Your task to perform on an android device: Do I have any events today? Image 0: 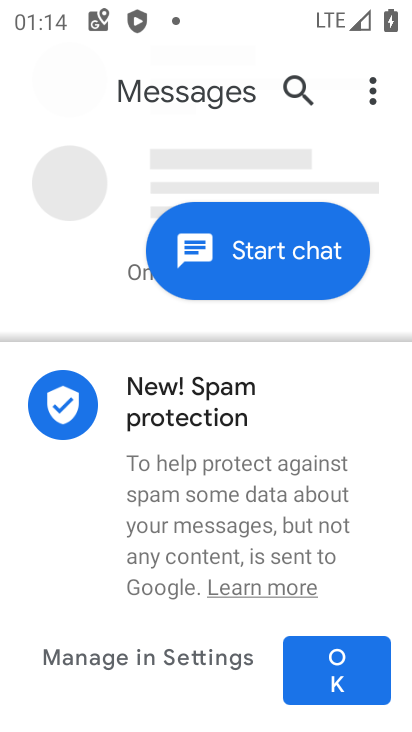
Step 0: press home button
Your task to perform on an android device: Do I have any events today? Image 1: 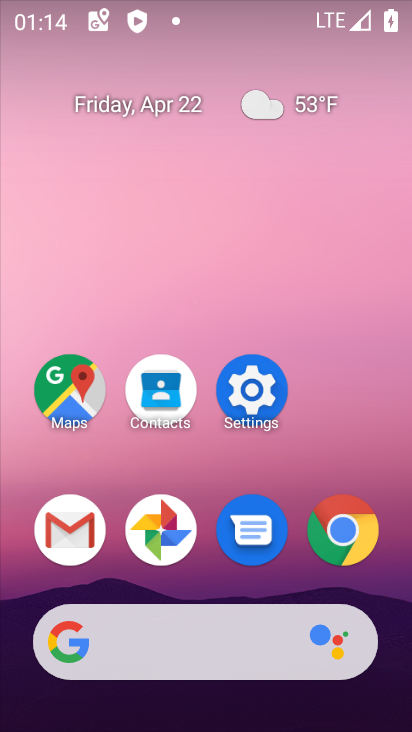
Step 1: drag from (214, 722) to (307, 104)
Your task to perform on an android device: Do I have any events today? Image 2: 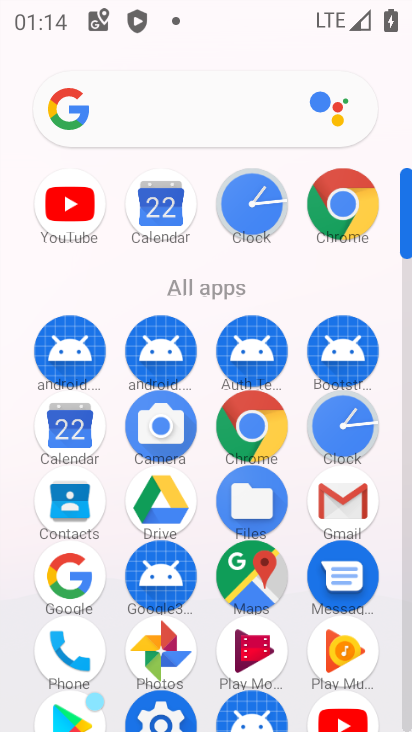
Step 2: click (50, 428)
Your task to perform on an android device: Do I have any events today? Image 3: 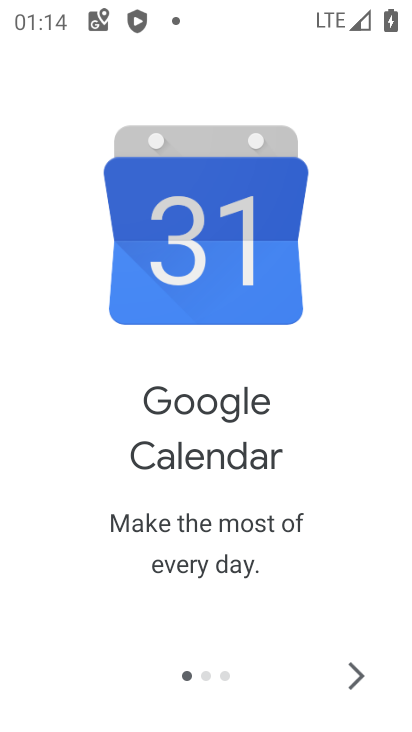
Step 3: click (346, 677)
Your task to perform on an android device: Do I have any events today? Image 4: 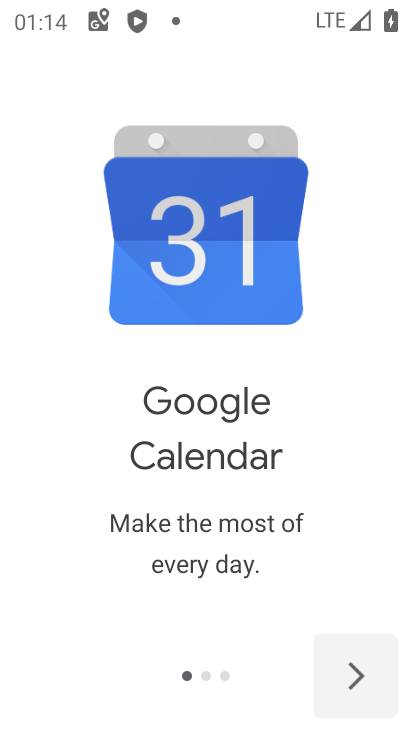
Step 4: click (358, 677)
Your task to perform on an android device: Do I have any events today? Image 5: 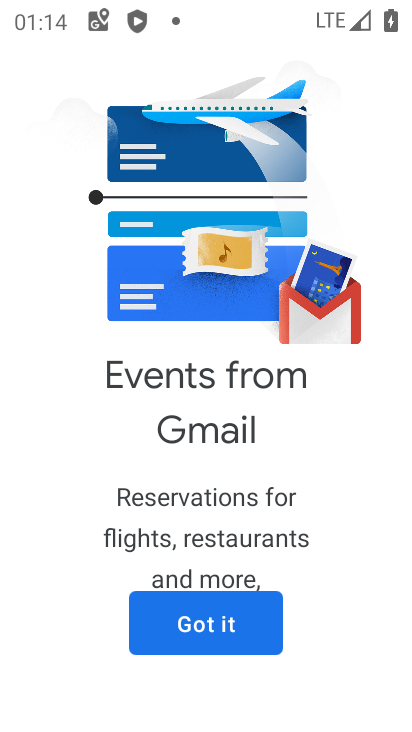
Step 5: click (194, 614)
Your task to perform on an android device: Do I have any events today? Image 6: 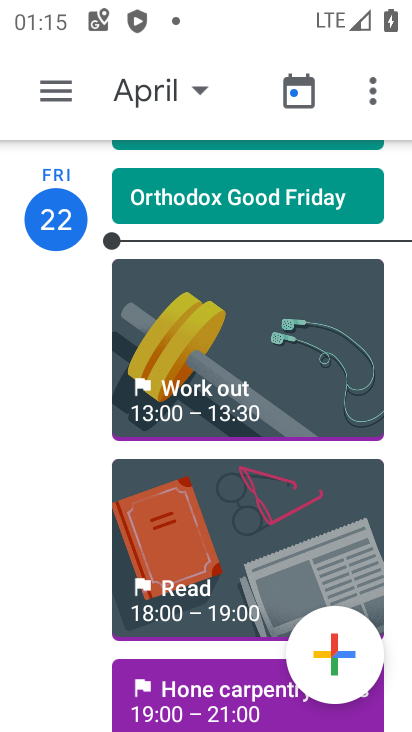
Step 6: click (201, 85)
Your task to perform on an android device: Do I have any events today? Image 7: 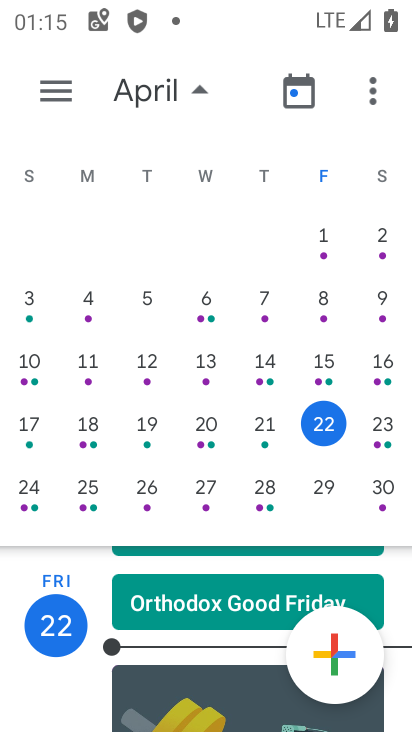
Step 7: click (265, 427)
Your task to perform on an android device: Do I have any events today? Image 8: 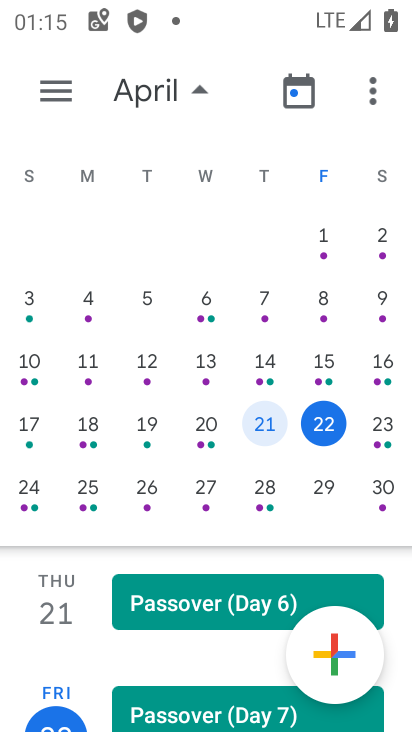
Step 8: task complete